Your task to perform on an android device: Go to battery settings Image 0: 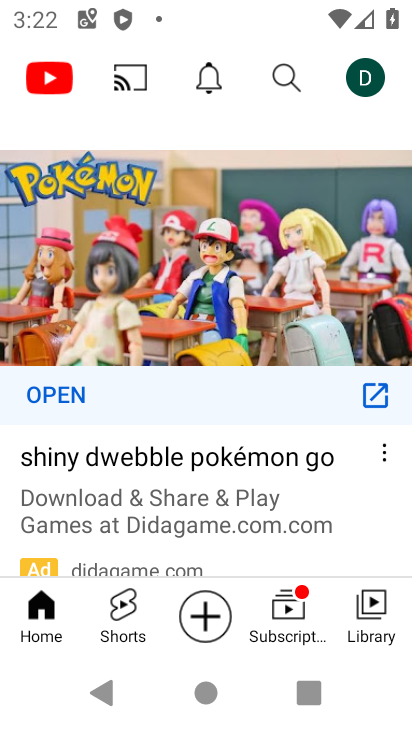
Step 0: press home button
Your task to perform on an android device: Go to battery settings Image 1: 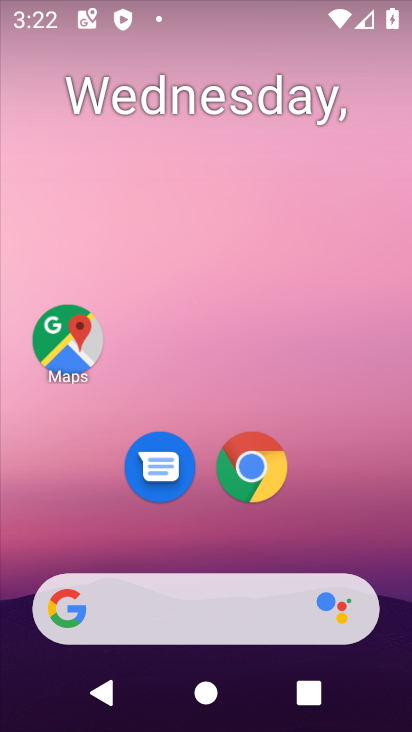
Step 1: drag from (384, 540) to (306, 160)
Your task to perform on an android device: Go to battery settings Image 2: 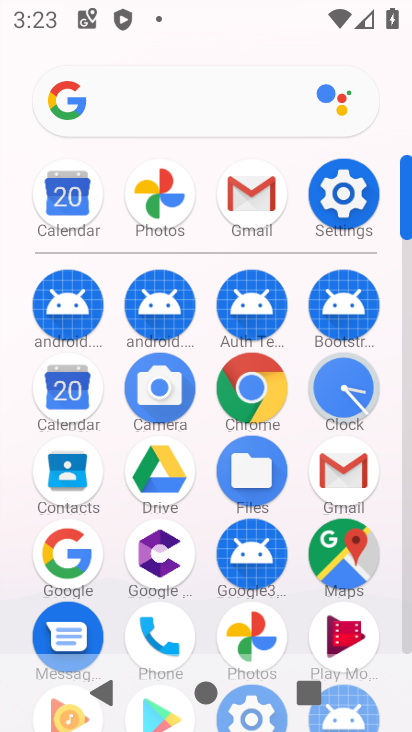
Step 2: click (407, 633)
Your task to perform on an android device: Go to battery settings Image 3: 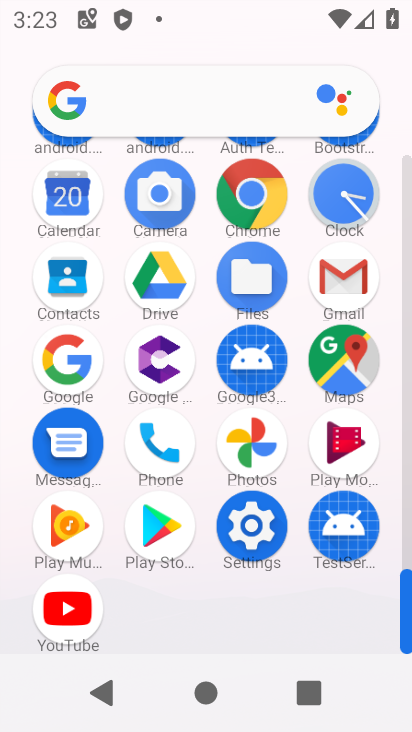
Step 3: click (251, 522)
Your task to perform on an android device: Go to battery settings Image 4: 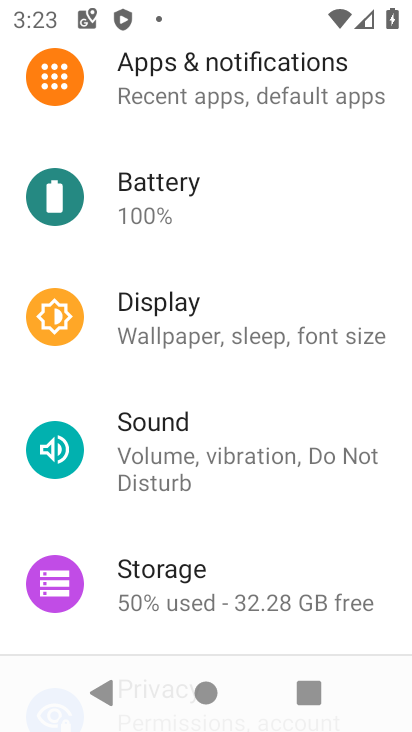
Step 4: drag from (247, 300) to (242, 536)
Your task to perform on an android device: Go to battery settings Image 5: 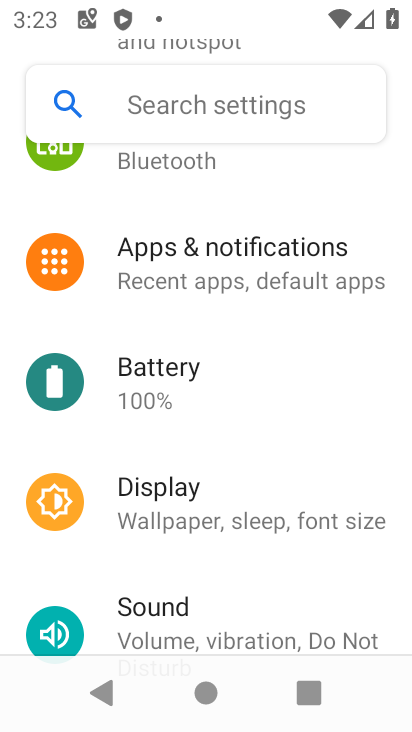
Step 5: drag from (265, 350) to (242, 484)
Your task to perform on an android device: Go to battery settings Image 6: 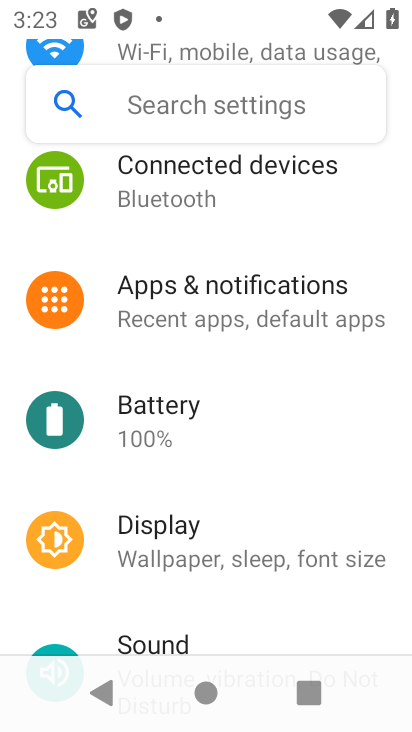
Step 6: click (172, 414)
Your task to perform on an android device: Go to battery settings Image 7: 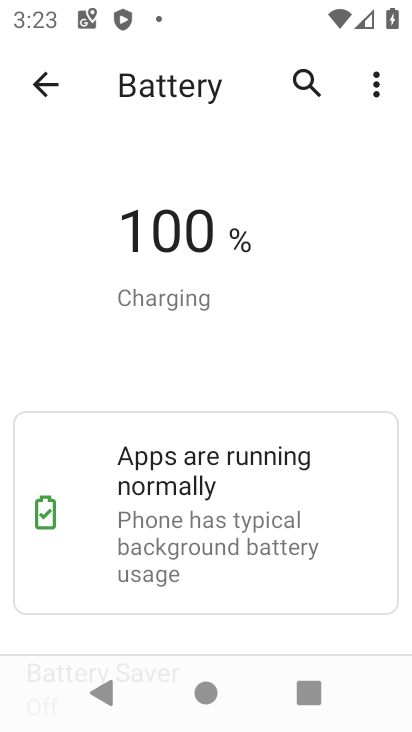
Step 7: task complete